Your task to perform on an android device: Open settings Image 0: 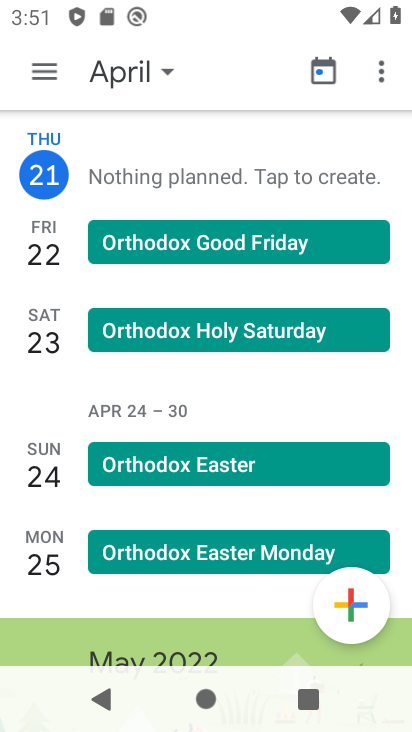
Step 0: press home button
Your task to perform on an android device: Open settings Image 1: 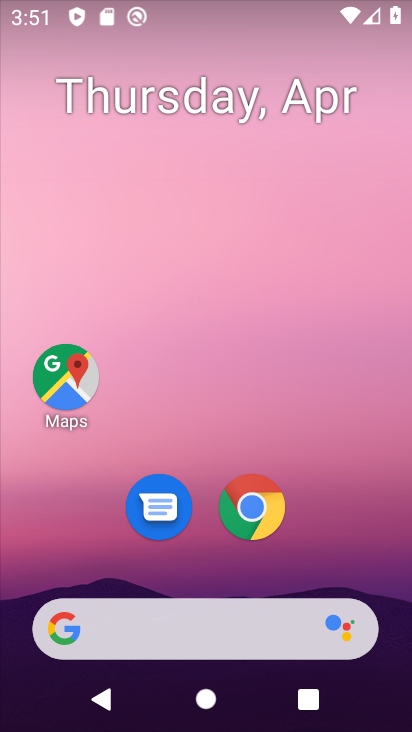
Step 1: drag from (297, 550) to (278, 171)
Your task to perform on an android device: Open settings Image 2: 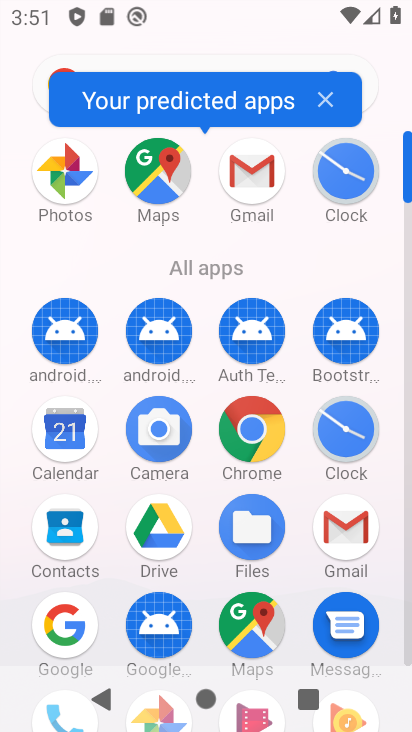
Step 2: drag from (289, 613) to (303, 199)
Your task to perform on an android device: Open settings Image 3: 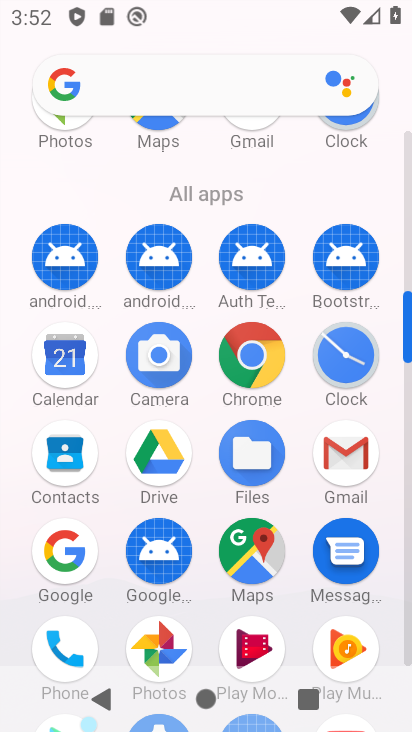
Step 3: drag from (205, 641) to (210, 271)
Your task to perform on an android device: Open settings Image 4: 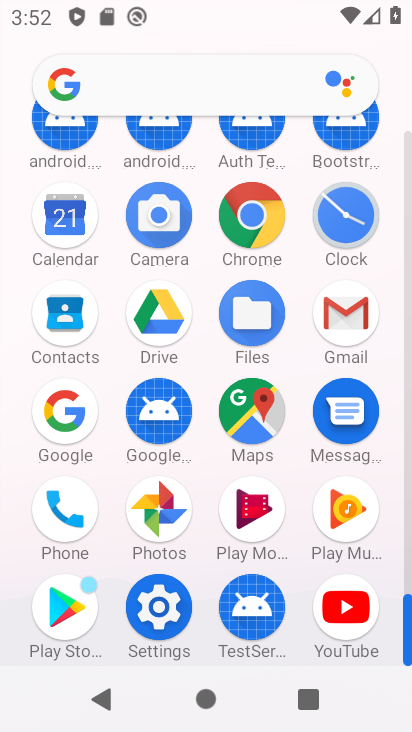
Step 4: click (159, 593)
Your task to perform on an android device: Open settings Image 5: 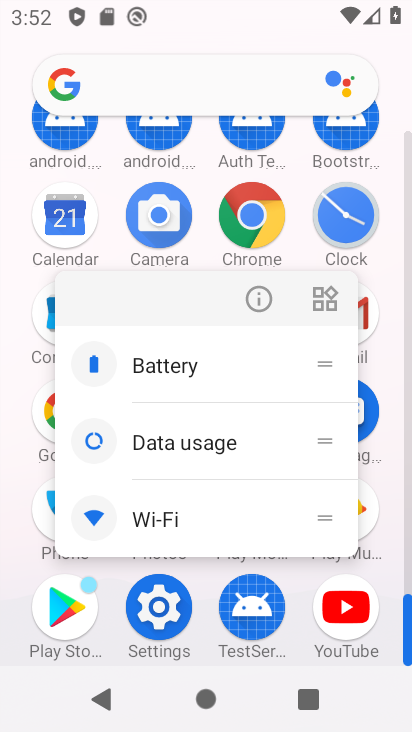
Step 5: click (165, 595)
Your task to perform on an android device: Open settings Image 6: 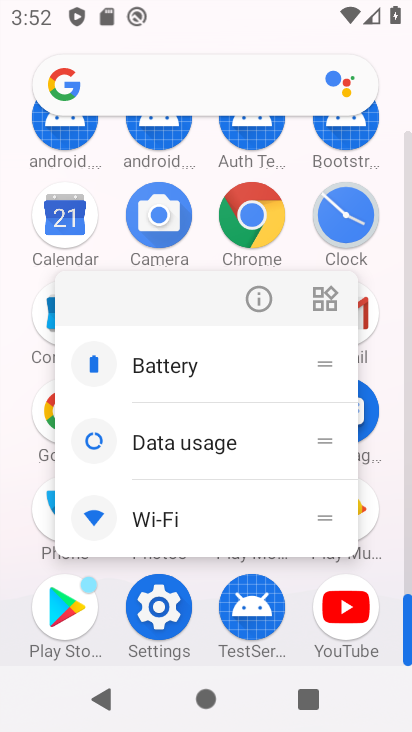
Step 6: click (159, 605)
Your task to perform on an android device: Open settings Image 7: 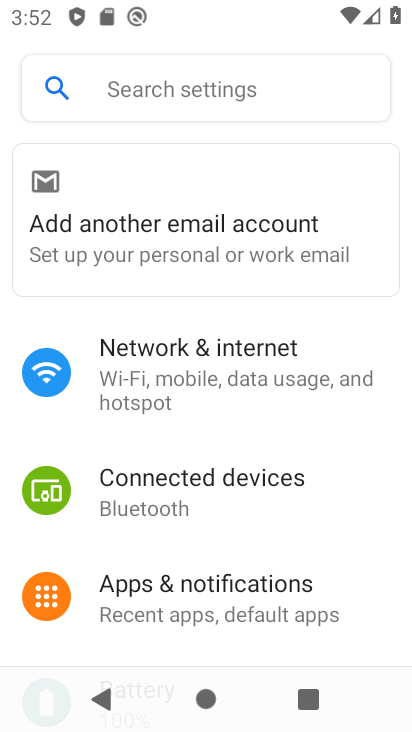
Step 7: task complete